Your task to perform on an android device: Open the stopwatch Image 0: 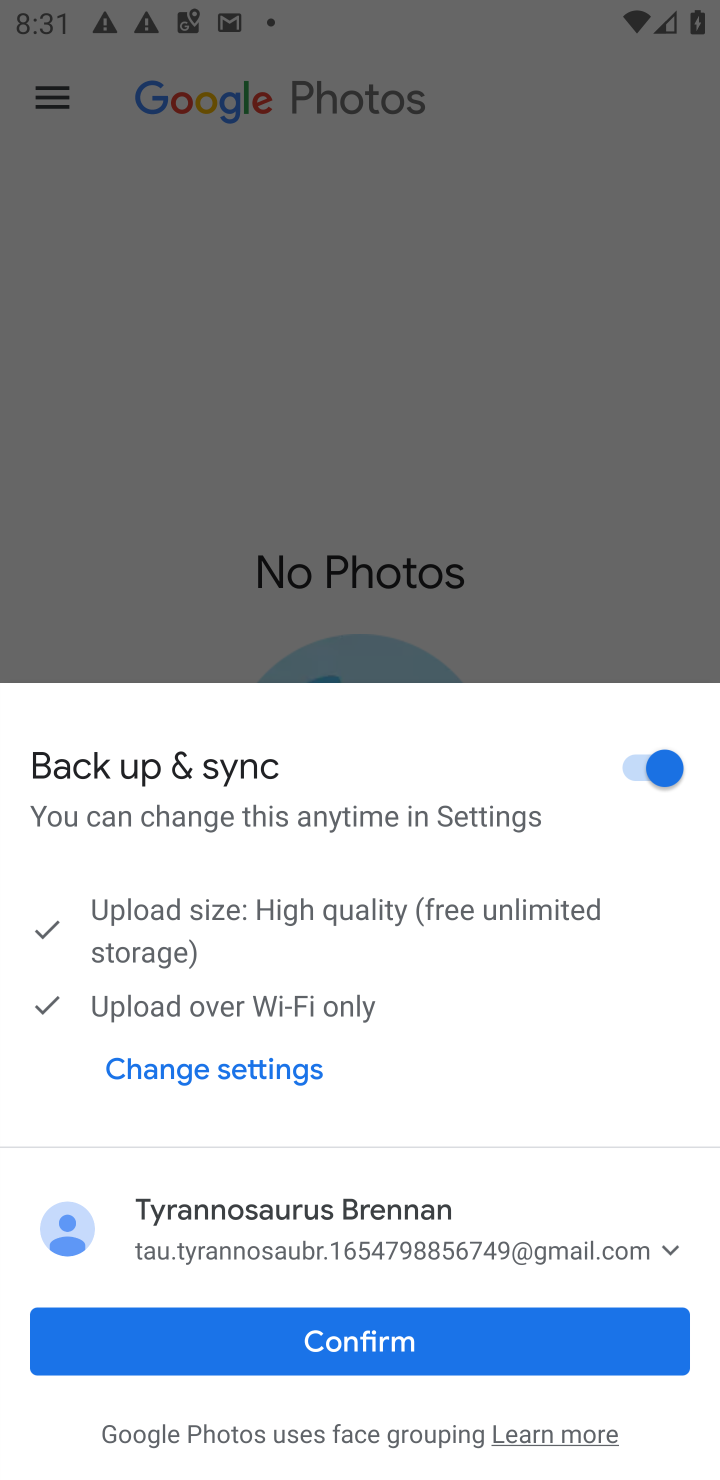
Step 0: press home button
Your task to perform on an android device: Open the stopwatch Image 1: 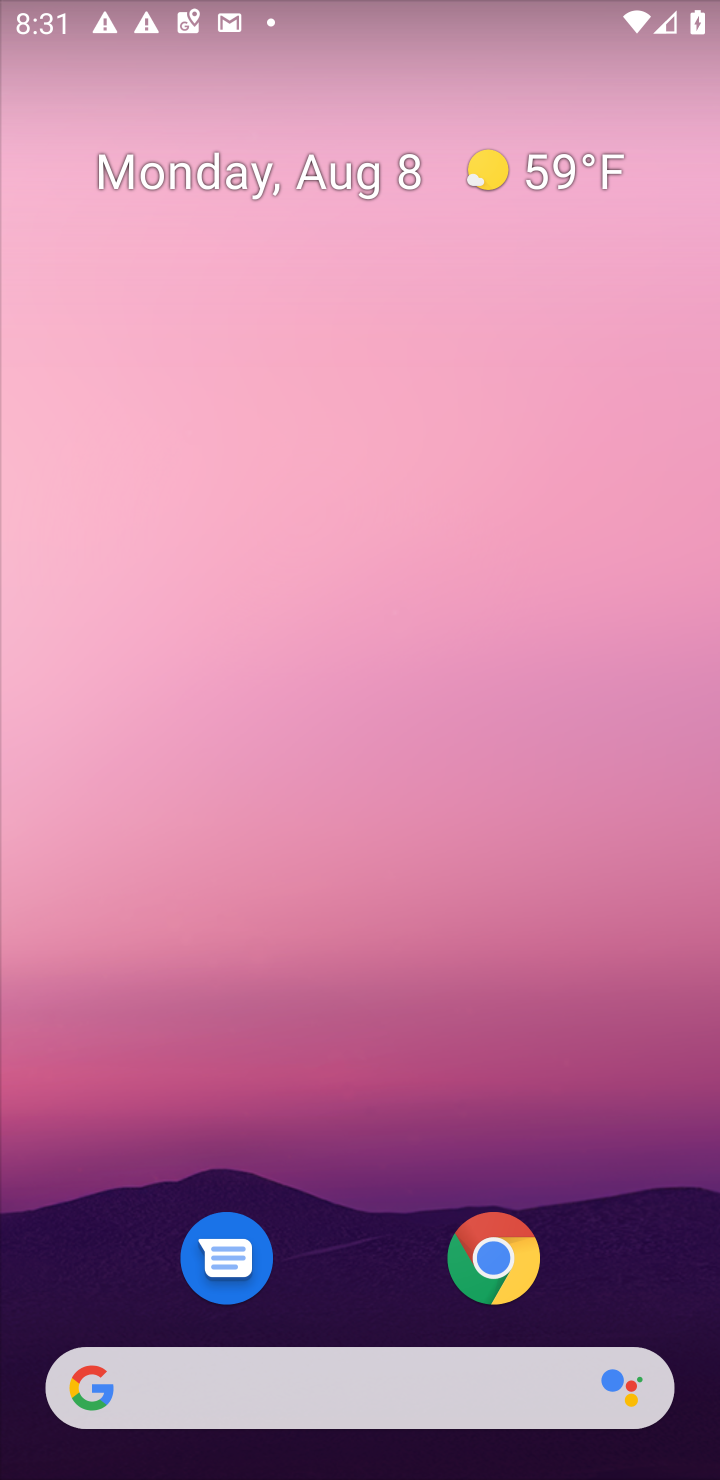
Step 1: drag from (372, 613) to (371, 315)
Your task to perform on an android device: Open the stopwatch Image 2: 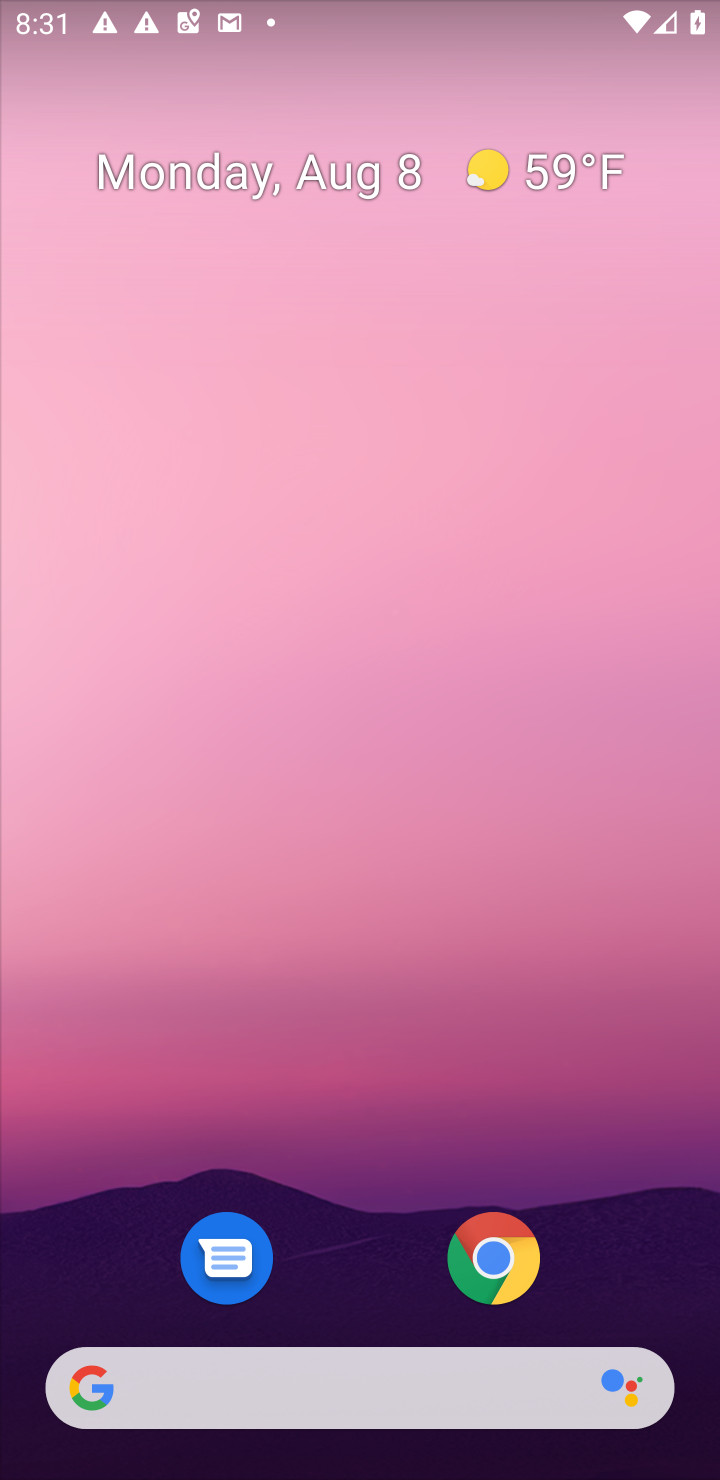
Step 2: drag from (382, 1205) to (339, 86)
Your task to perform on an android device: Open the stopwatch Image 3: 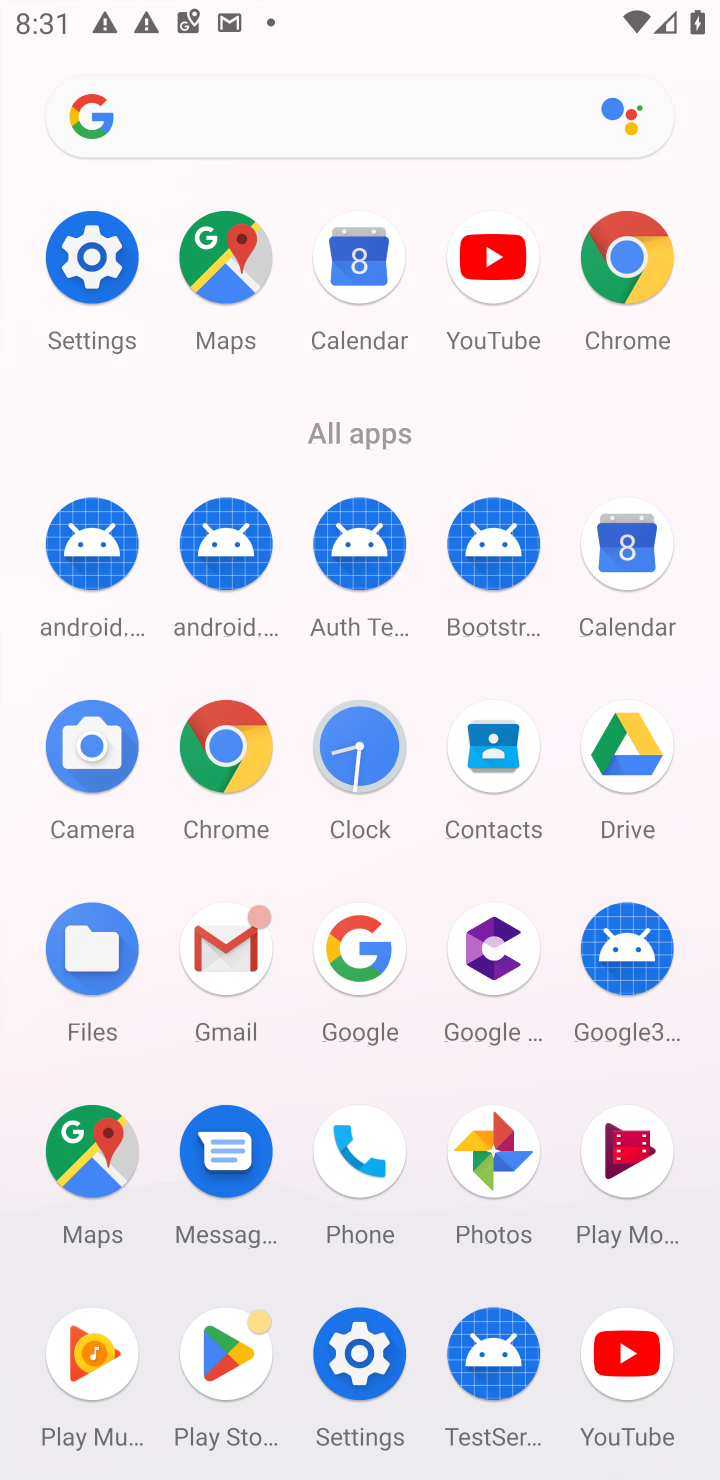
Step 3: click (370, 764)
Your task to perform on an android device: Open the stopwatch Image 4: 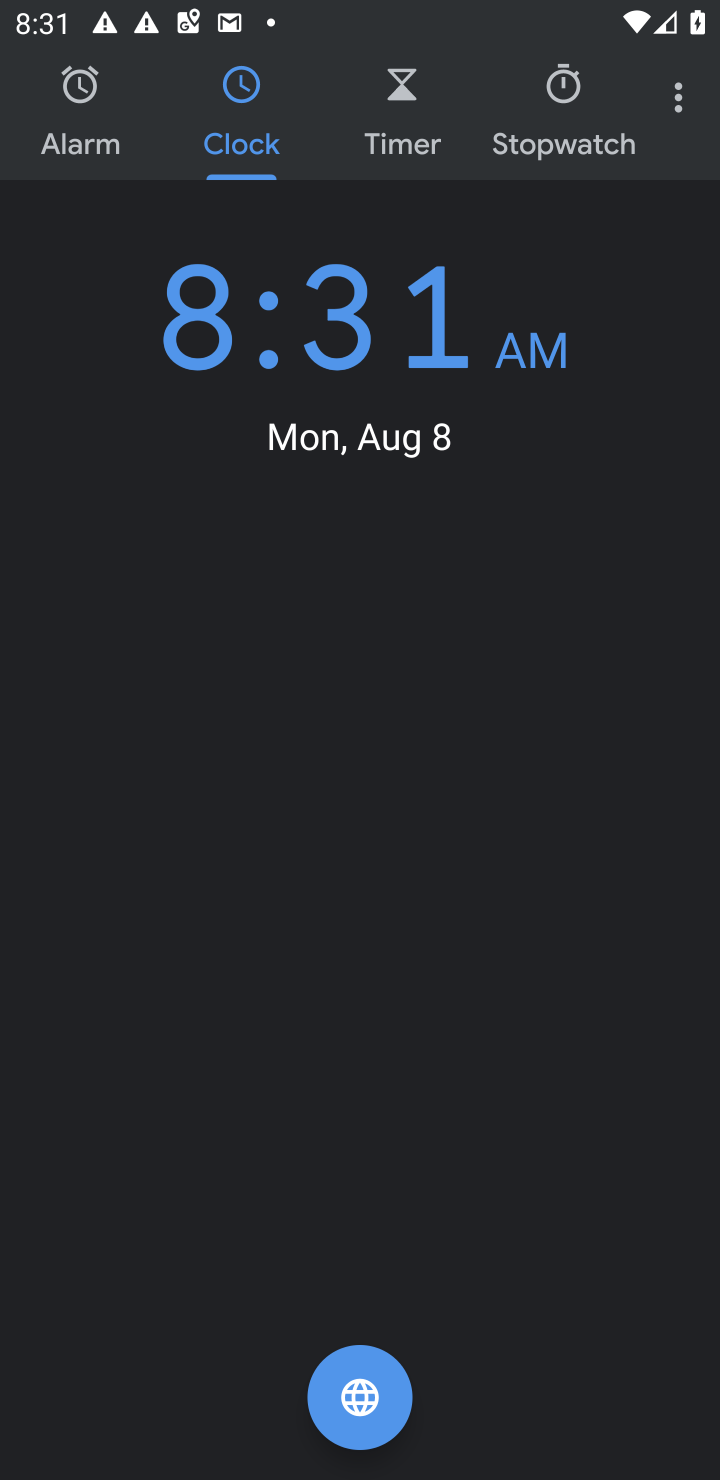
Step 4: task complete